Your task to perform on an android device: star an email in the gmail app Image 0: 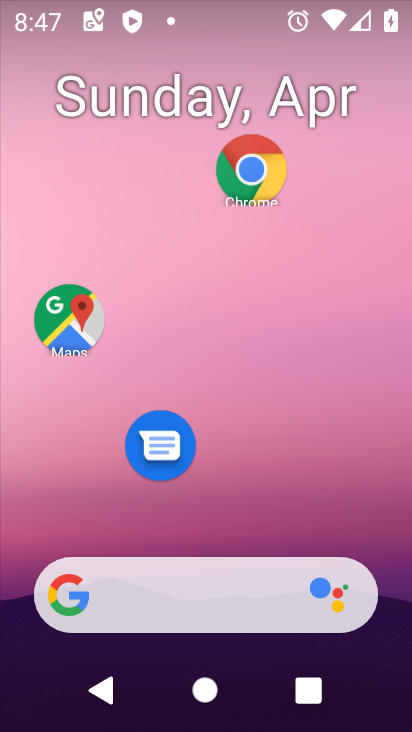
Step 0: drag from (275, 529) to (331, 0)
Your task to perform on an android device: star an email in the gmail app Image 1: 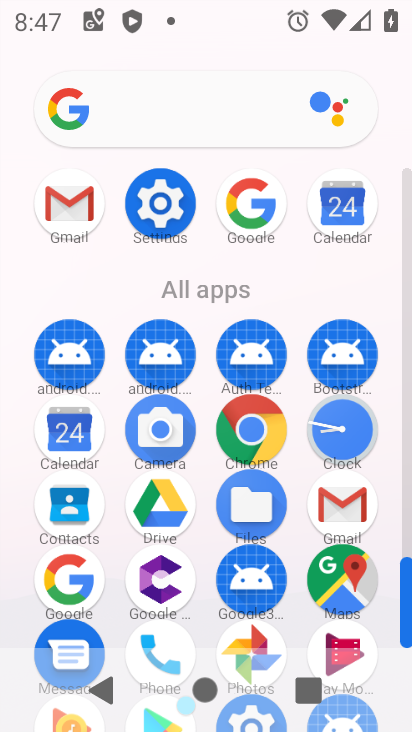
Step 1: click (71, 207)
Your task to perform on an android device: star an email in the gmail app Image 2: 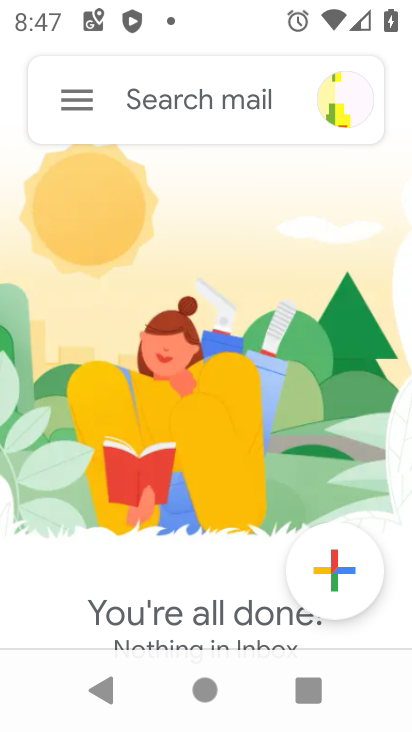
Step 2: click (78, 104)
Your task to perform on an android device: star an email in the gmail app Image 3: 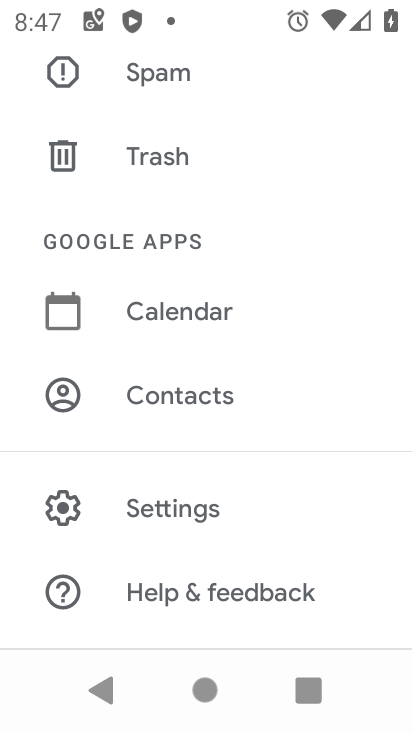
Step 3: click (169, 506)
Your task to perform on an android device: star an email in the gmail app Image 4: 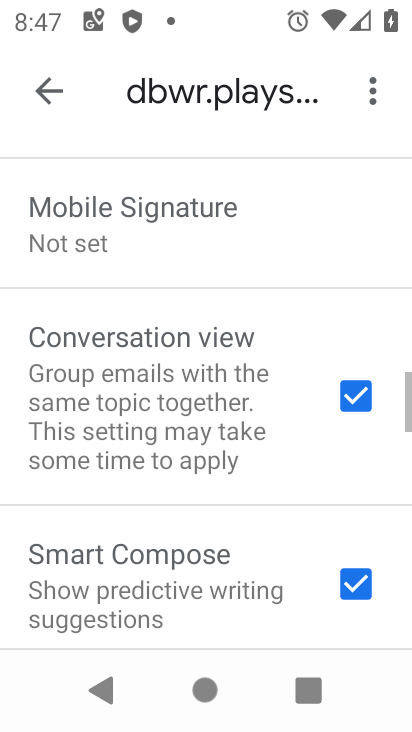
Step 4: drag from (251, 488) to (268, 85)
Your task to perform on an android device: star an email in the gmail app Image 5: 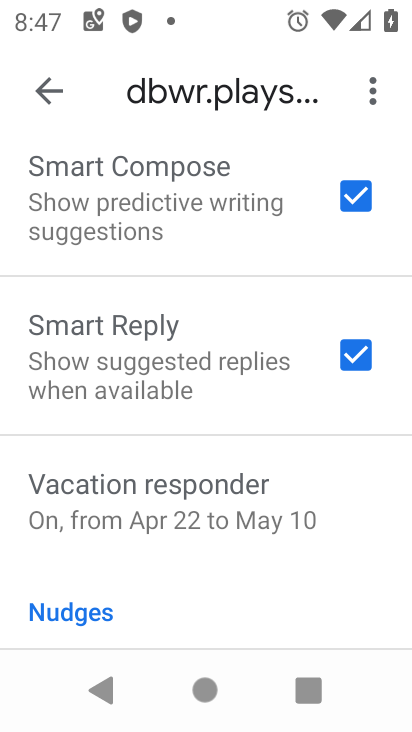
Step 5: drag from (246, 585) to (236, 452)
Your task to perform on an android device: star an email in the gmail app Image 6: 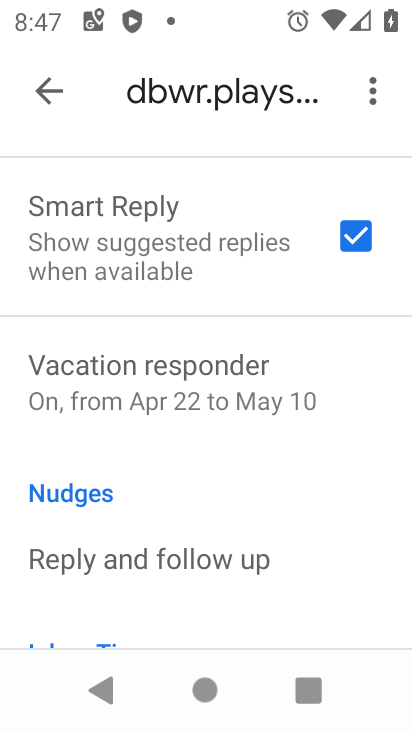
Step 6: drag from (244, 525) to (257, 567)
Your task to perform on an android device: star an email in the gmail app Image 7: 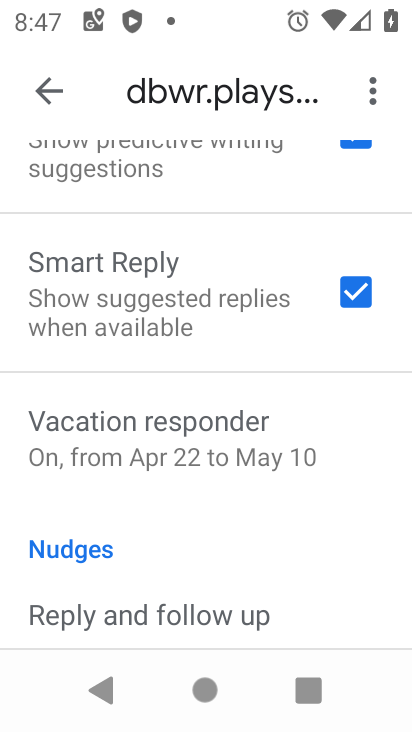
Step 7: press back button
Your task to perform on an android device: star an email in the gmail app Image 8: 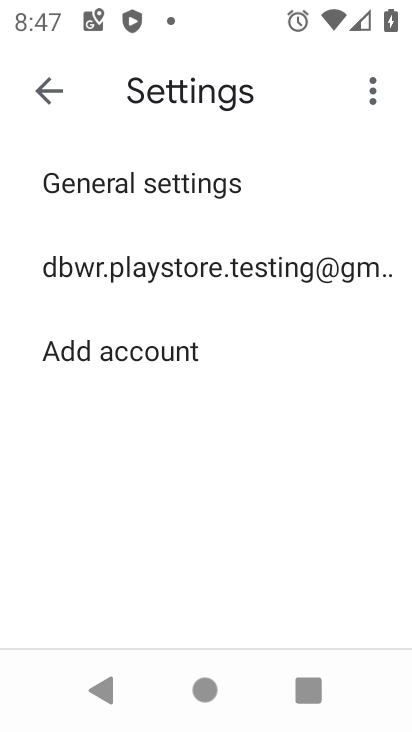
Step 8: press back button
Your task to perform on an android device: star an email in the gmail app Image 9: 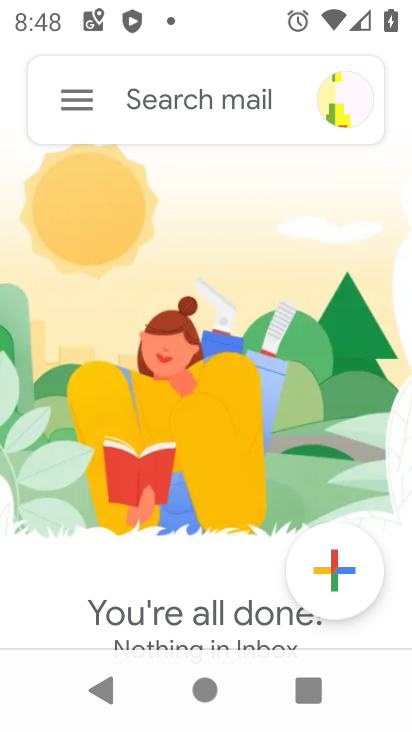
Step 9: click (60, 108)
Your task to perform on an android device: star an email in the gmail app Image 10: 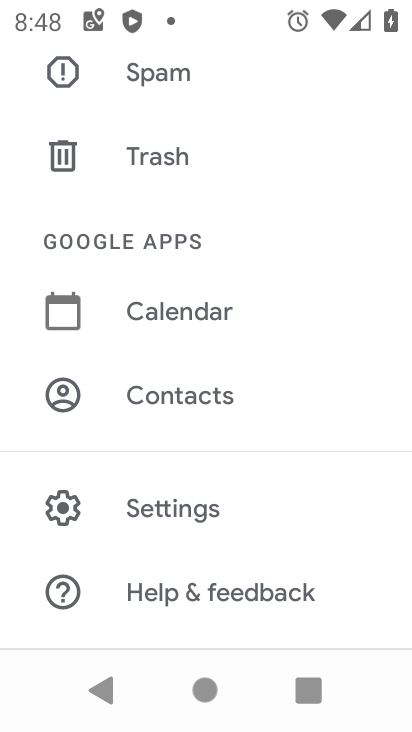
Step 10: drag from (277, 225) to (242, 481)
Your task to perform on an android device: star an email in the gmail app Image 11: 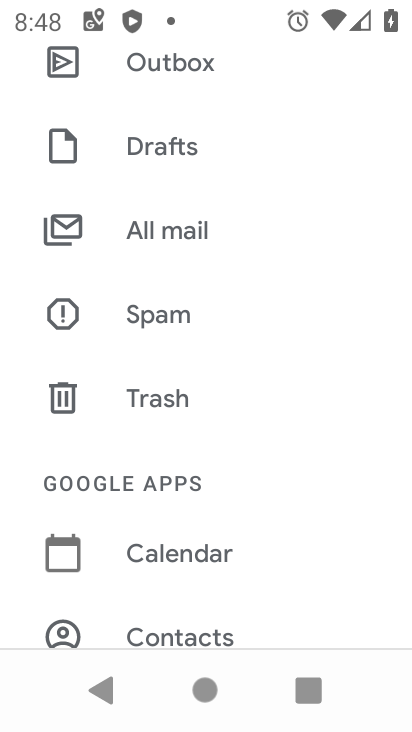
Step 11: click (188, 250)
Your task to perform on an android device: star an email in the gmail app Image 12: 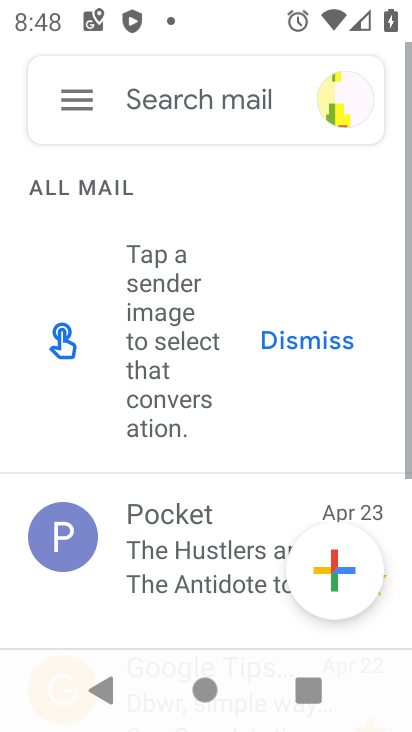
Step 12: task complete